Your task to perform on an android device: Go to Android settings Image 0: 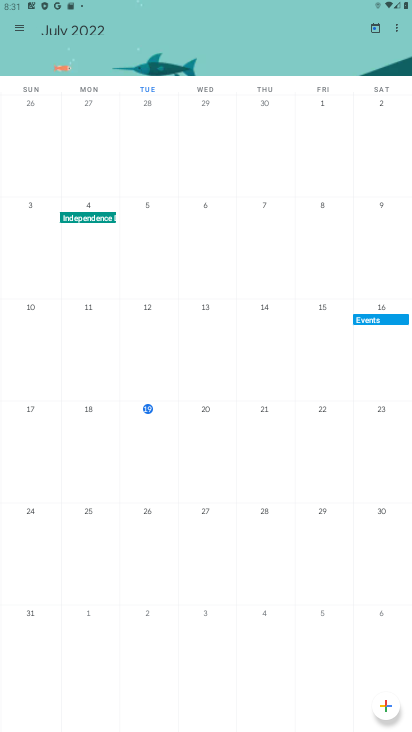
Step 0: press home button
Your task to perform on an android device: Go to Android settings Image 1: 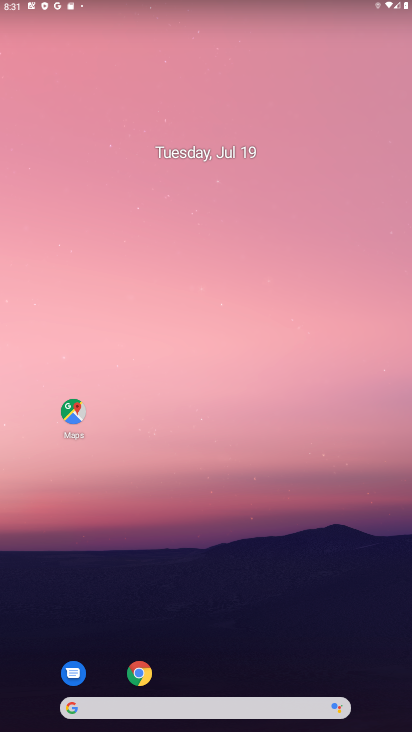
Step 1: drag from (211, 660) to (206, 305)
Your task to perform on an android device: Go to Android settings Image 2: 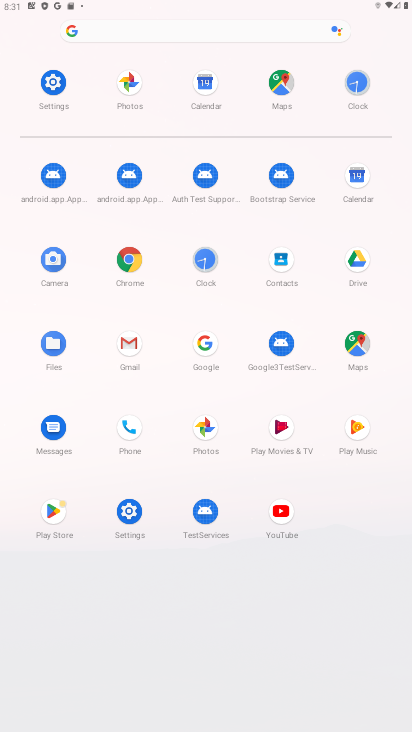
Step 2: click (59, 86)
Your task to perform on an android device: Go to Android settings Image 3: 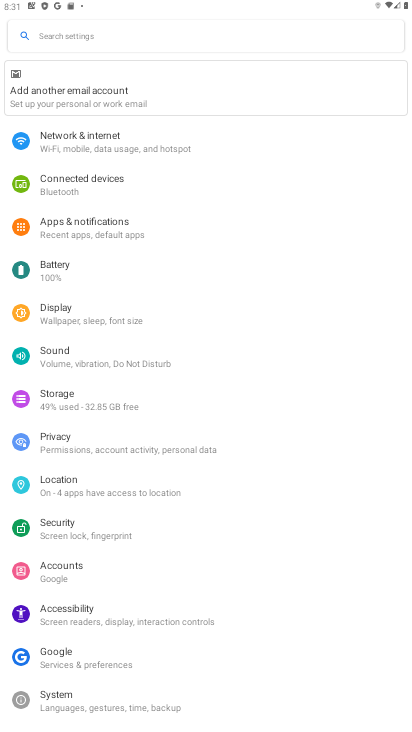
Step 3: drag from (149, 693) to (186, 345)
Your task to perform on an android device: Go to Android settings Image 4: 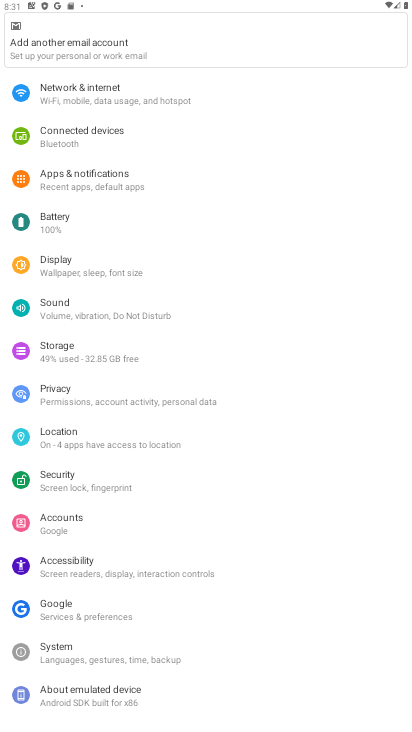
Step 4: click (95, 676)
Your task to perform on an android device: Go to Android settings Image 5: 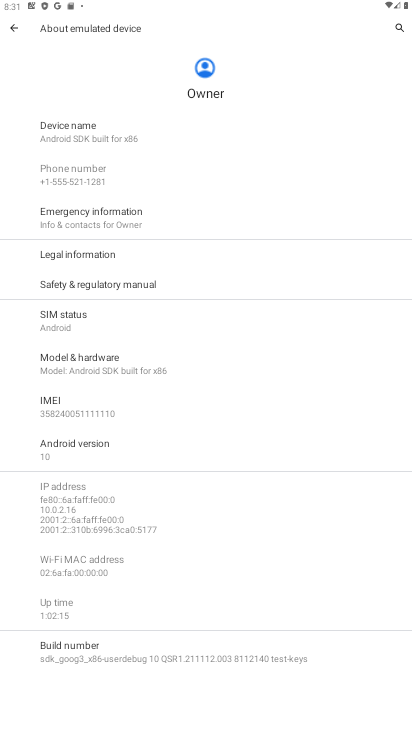
Step 5: task complete